Your task to perform on an android device: toggle show notifications on the lock screen Image 0: 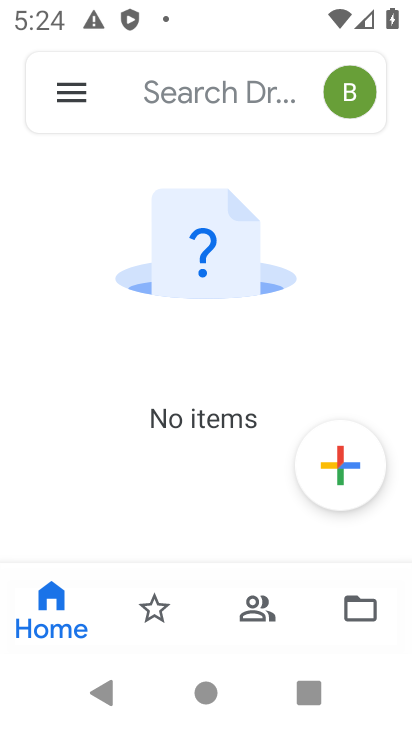
Step 0: task complete